Your task to perform on an android device: change notification settings in the gmail app Image 0: 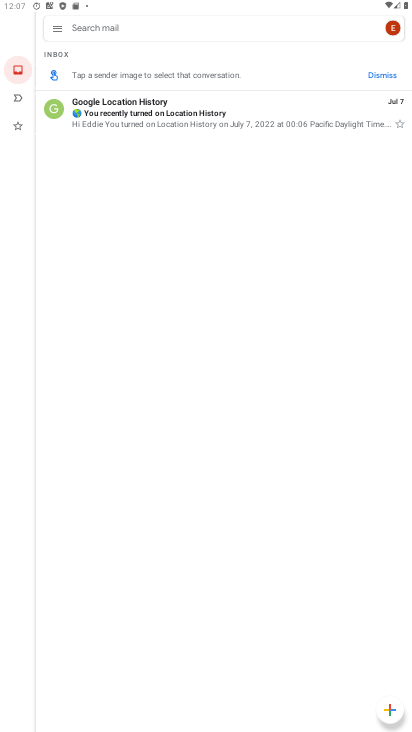
Step 0: press home button
Your task to perform on an android device: change notification settings in the gmail app Image 1: 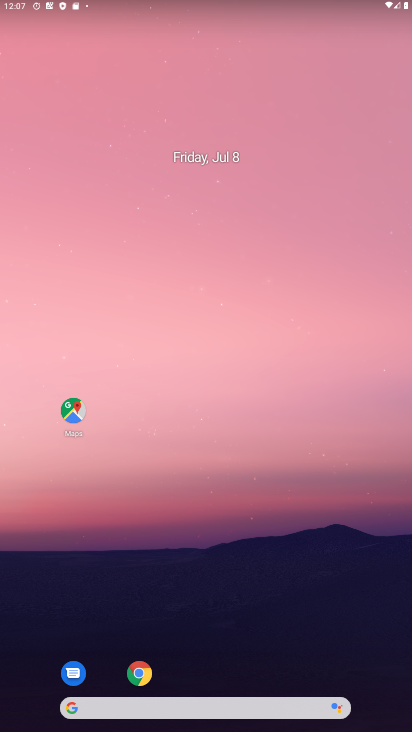
Step 1: drag from (223, 663) to (245, 104)
Your task to perform on an android device: change notification settings in the gmail app Image 2: 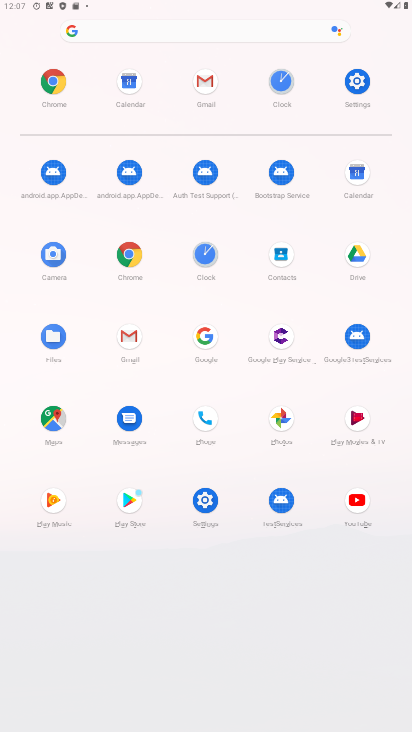
Step 2: click (203, 80)
Your task to perform on an android device: change notification settings in the gmail app Image 3: 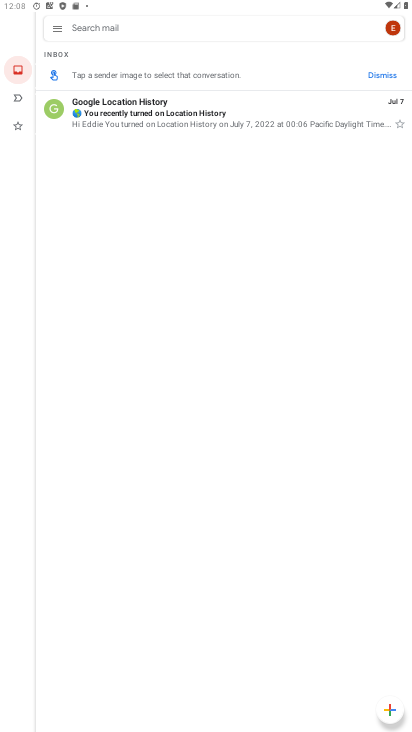
Step 3: click (61, 29)
Your task to perform on an android device: change notification settings in the gmail app Image 4: 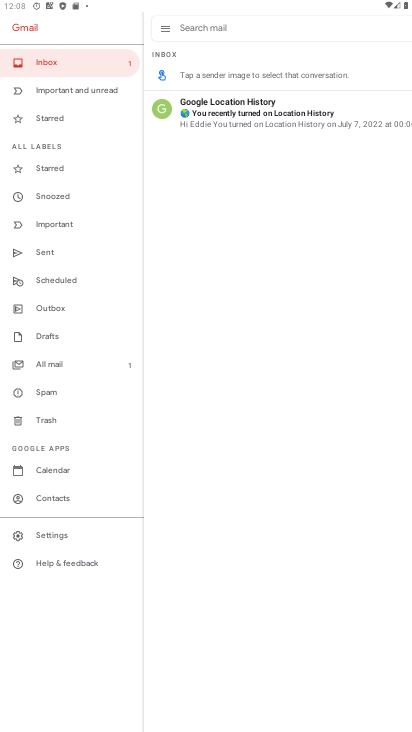
Step 4: click (56, 536)
Your task to perform on an android device: change notification settings in the gmail app Image 5: 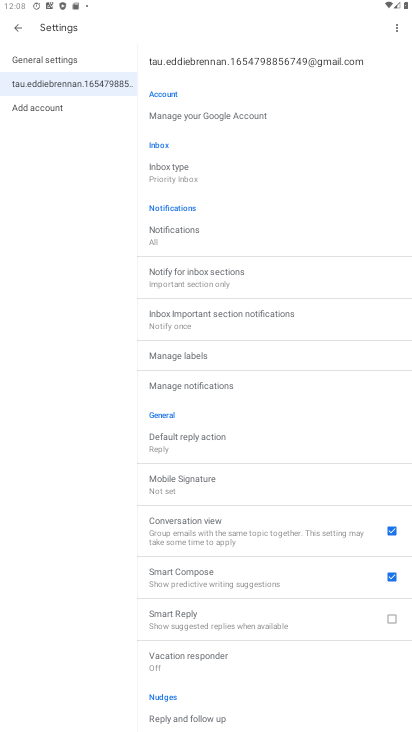
Step 5: click (210, 387)
Your task to perform on an android device: change notification settings in the gmail app Image 6: 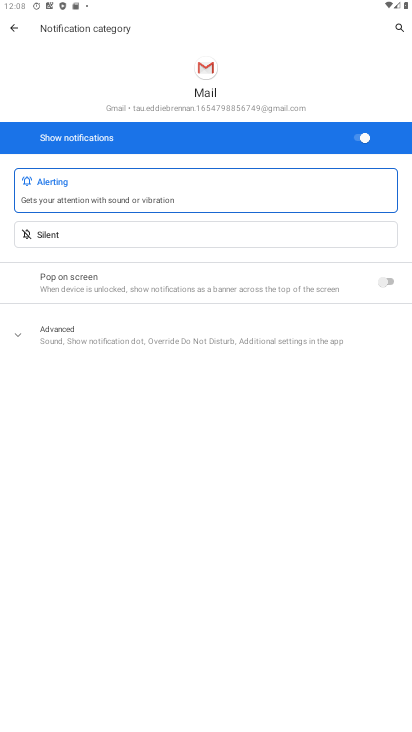
Step 6: click (370, 136)
Your task to perform on an android device: change notification settings in the gmail app Image 7: 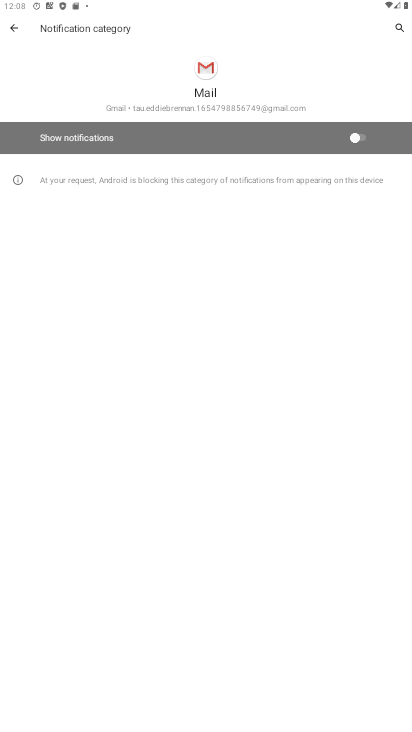
Step 7: task complete